Your task to perform on an android device: see creations saved in the google photos Image 0: 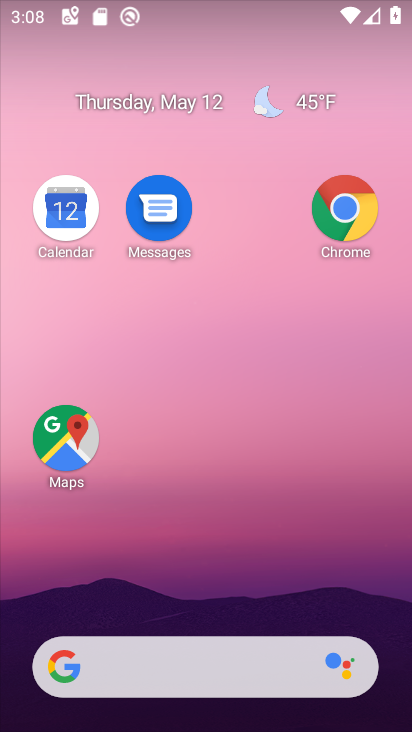
Step 0: drag from (217, 563) to (226, 88)
Your task to perform on an android device: see creations saved in the google photos Image 1: 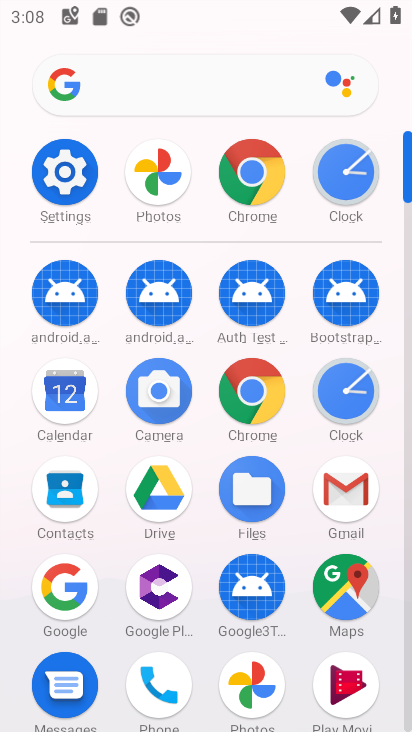
Step 1: click (253, 671)
Your task to perform on an android device: see creations saved in the google photos Image 2: 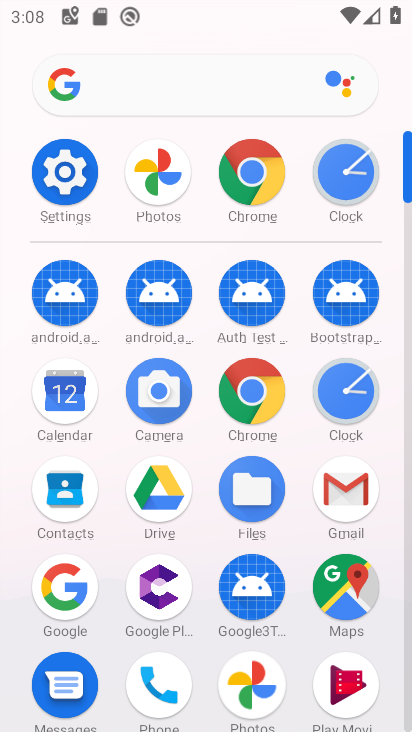
Step 2: click (252, 672)
Your task to perform on an android device: see creations saved in the google photos Image 3: 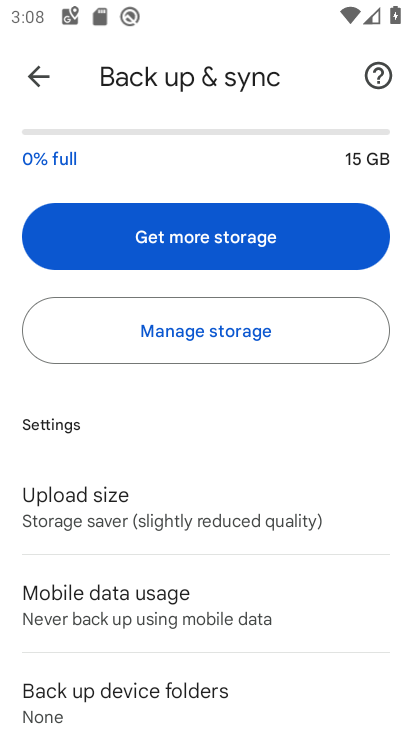
Step 3: drag from (181, 460) to (320, 728)
Your task to perform on an android device: see creations saved in the google photos Image 4: 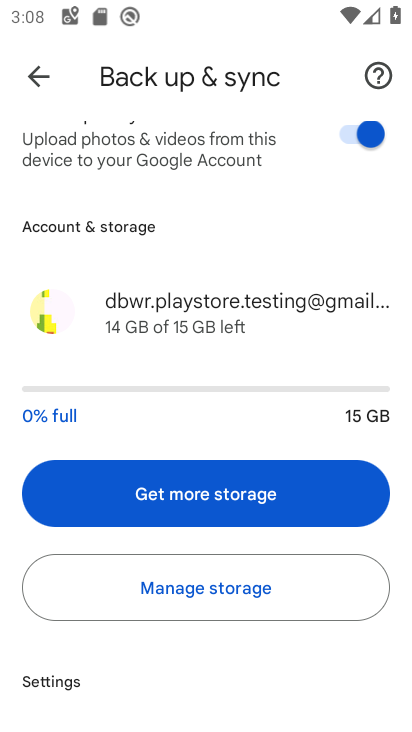
Step 4: drag from (227, 700) to (257, 322)
Your task to perform on an android device: see creations saved in the google photos Image 5: 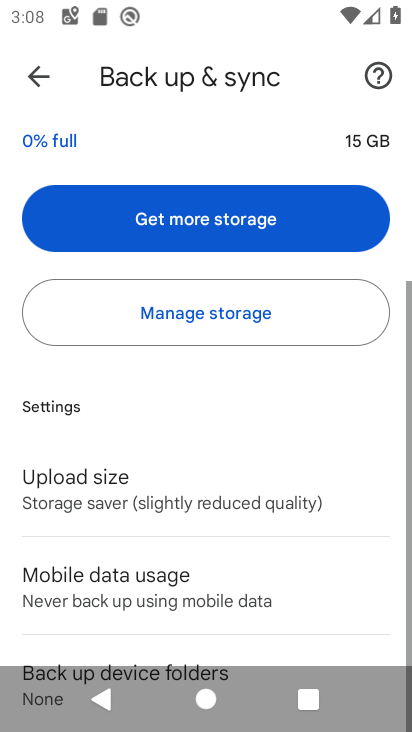
Step 5: drag from (264, 345) to (295, 728)
Your task to perform on an android device: see creations saved in the google photos Image 6: 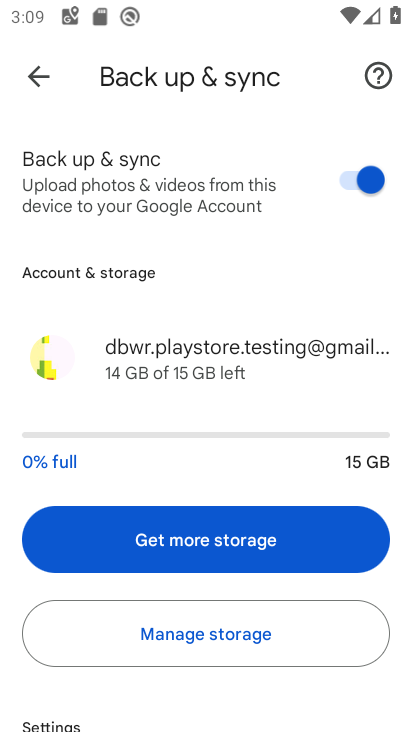
Step 6: drag from (210, 589) to (247, 553)
Your task to perform on an android device: see creations saved in the google photos Image 7: 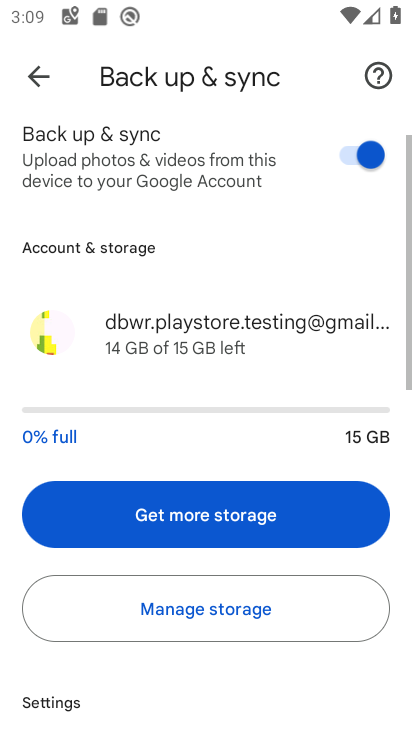
Step 7: click (38, 67)
Your task to perform on an android device: see creations saved in the google photos Image 8: 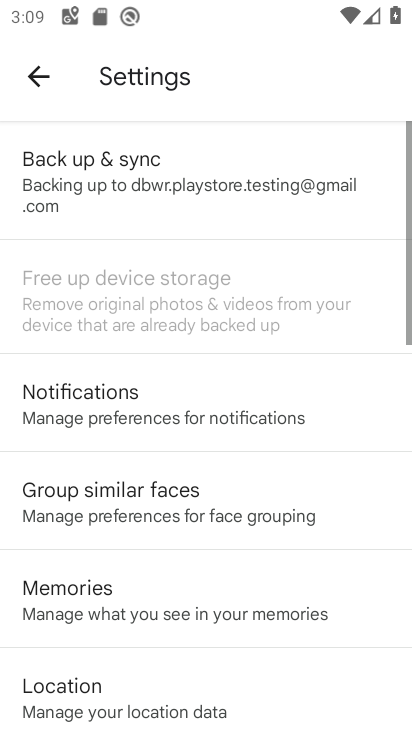
Step 8: click (38, 67)
Your task to perform on an android device: see creations saved in the google photos Image 9: 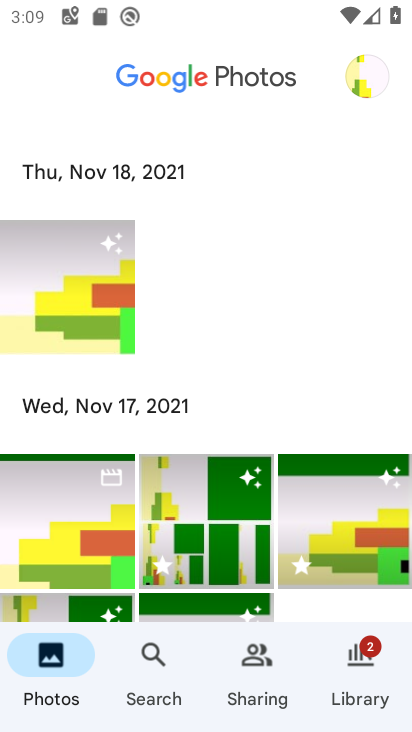
Step 9: click (127, 661)
Your task to perform on an android device: see creations saved in the google photos Image 10: 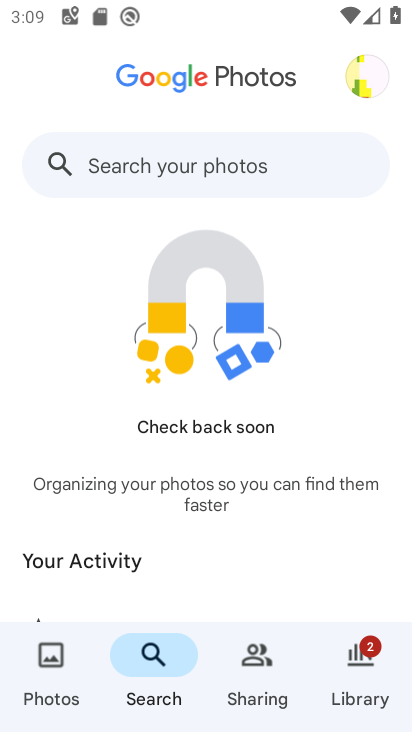
Step 10: drag from (163, 572) to (226, 102)
Your task to perform on an android device: see creations saved in the google photos Image 11: 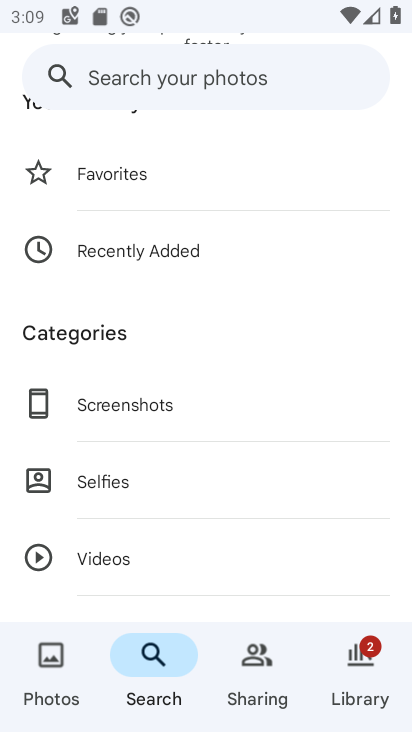
Step 11: drag from (179, 468) to (268, 23)
Your task to perform on an android device: see creations saved in the google photos Image 12: 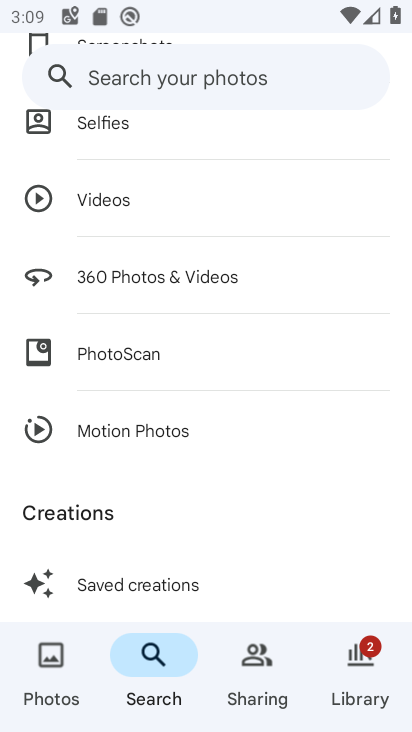
Step 12: drag from (168, 553) to (233, 124)
Your task to perform on an android device: see creations saved in the google photos Image 13: 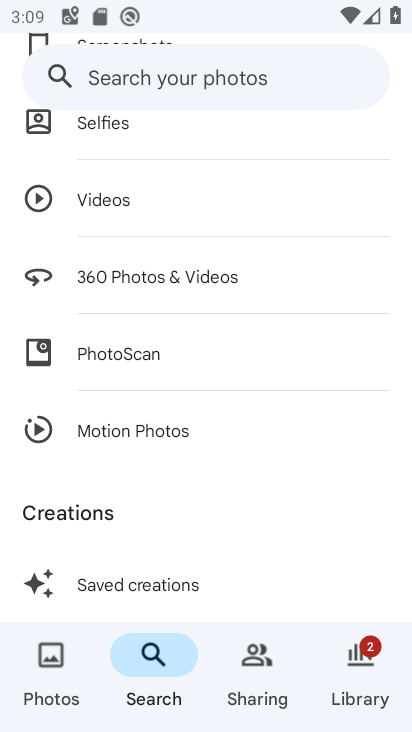
Step 13: click (119, 582)
Your task to perform on an android device: see creations saved in the google photos Image 14: 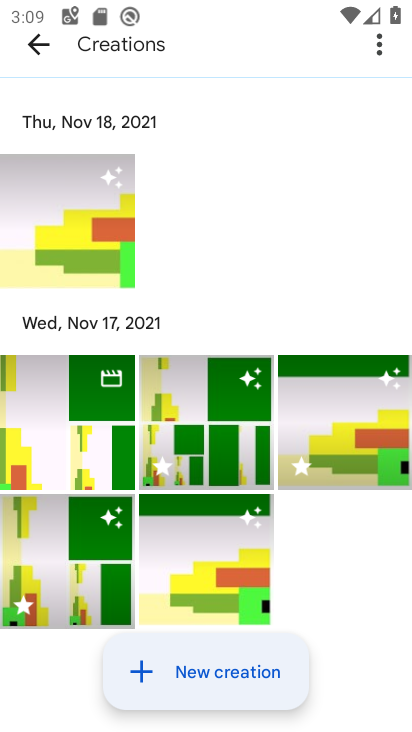
Step 14: click (88, 383)
Your task to perform on an android device: see creations saved in the google photos Image 15: 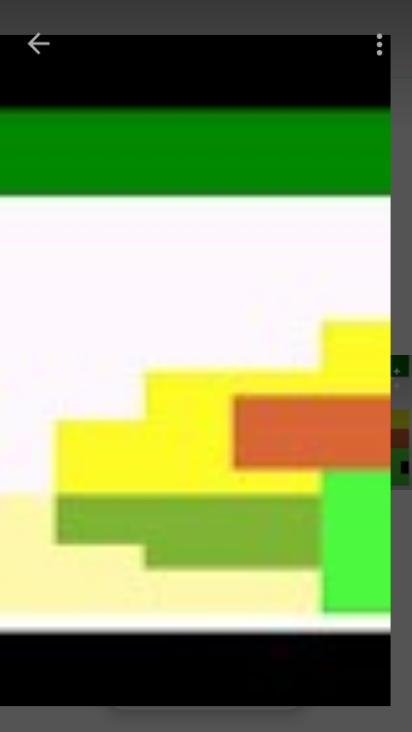
Step 15: task complete